Your task to perform on an android device: Show me popular videos on Youtube Image 0: 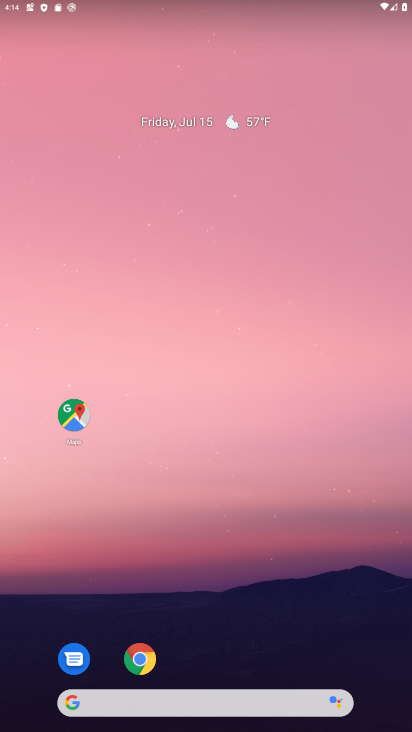
Step 0: drag from (260, 608) to (161, 74)
Your task to perform on an android device: Show me popular videos on Youtube Image 1: 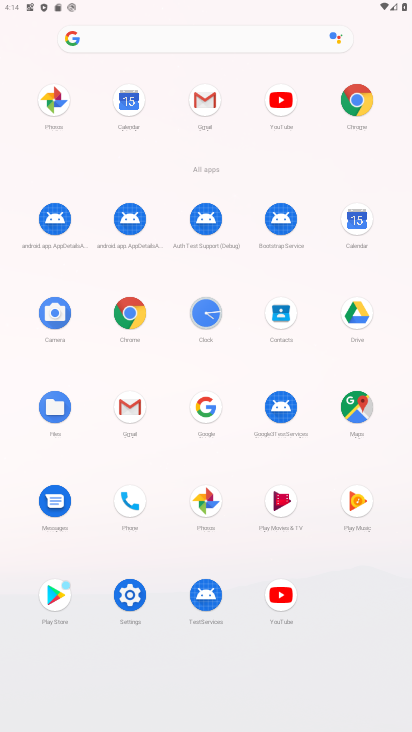
Step 1: click (276, 111)
Your task to perform on an android device: Show me popular videos on Youtube Image 2: 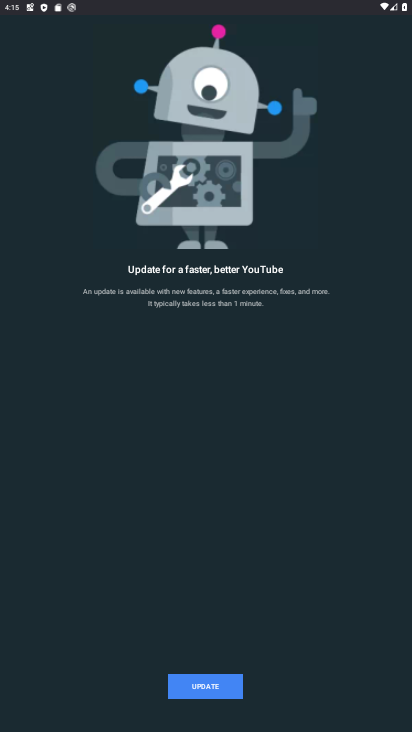
Step 2: click (237, 682)
Your task to perform on an android device: Show me popular videos on Youtube Image 3: 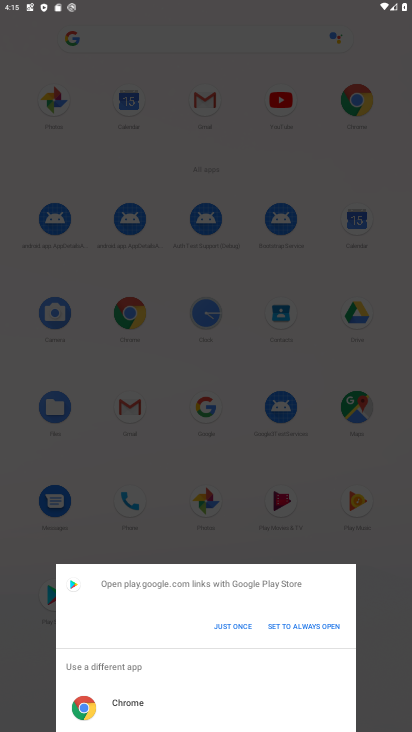
Step 3: click (240, 633)
Your task to perform on an android device: Show me popular videos on Youtube Image 4: 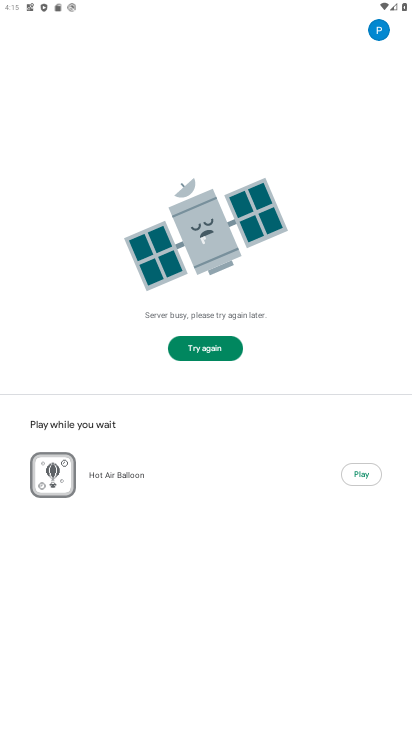
Step 4: task complete